Your task to perform on an android device: delete a single message in the gmail app Image 0: 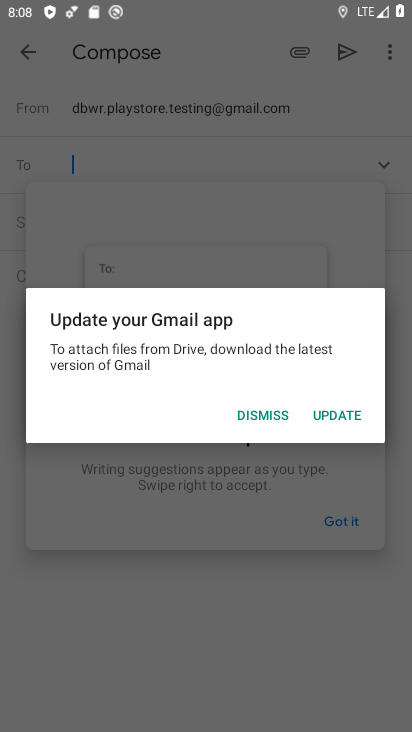
Step 0: press home button
Your task to perform on an android device: delete a single message in the gmail app Image 1: 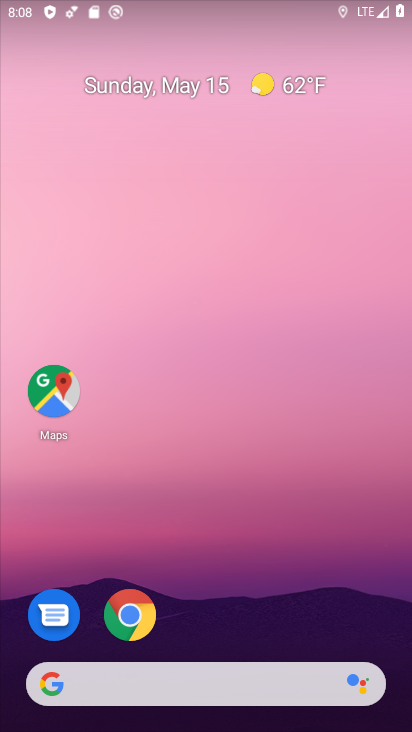
Step 1: drag from (184, 278) to (238, 20)
Your task to perform on an android device: delete a single message in the gmail app Image 2: 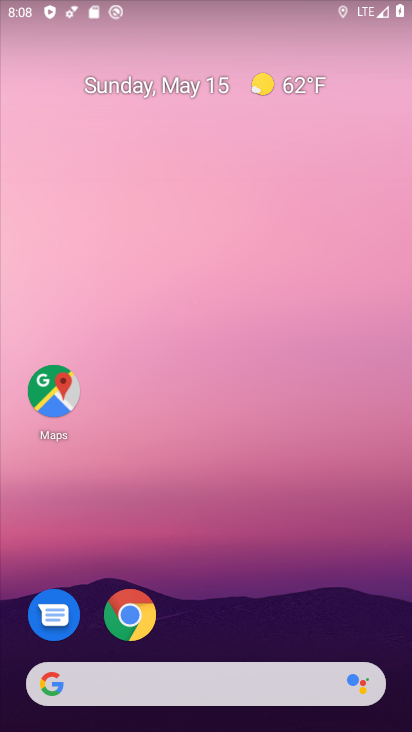
Step 2: drag from (207, 484) to (245, 3)
Your task to perform on an android device: delete a single message in the gmail app Image 3: 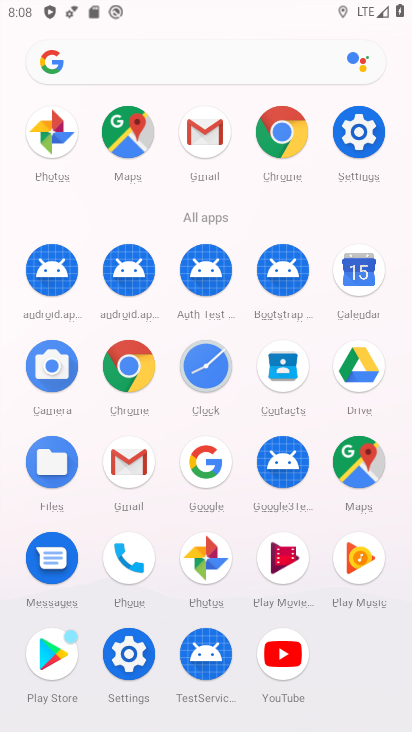
Step 3: click (212, 125)
Your task to perform on an android device: delete a single message in the gmail app Image 4: 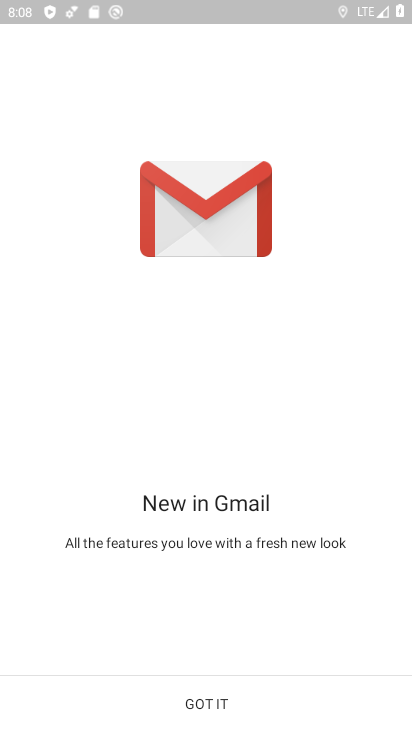
Step 4: click (193, 710)
Your task to perform on an android device: delete a single message in the gmail app Image 5: 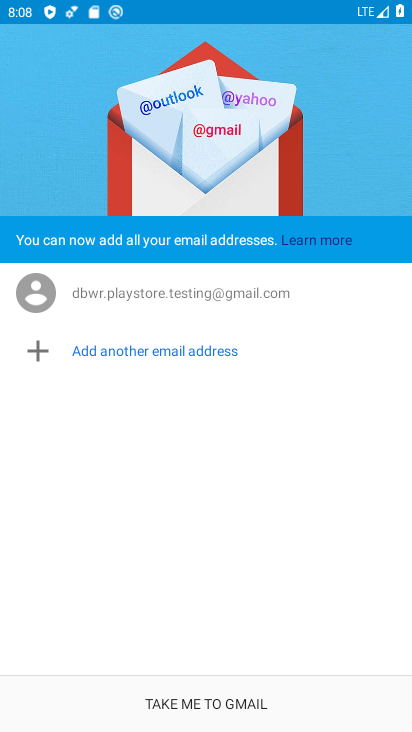
Step 5: click (193, 710)
Your task to perform on an android device: delete a single message in the gmail app Image 6: 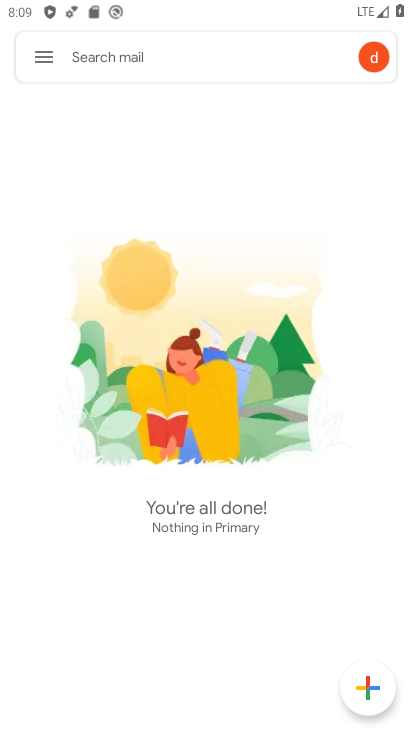
Step 6: click (193, 710)
Your task to perform on an android device: delete a single message in the gmail app Image 7: 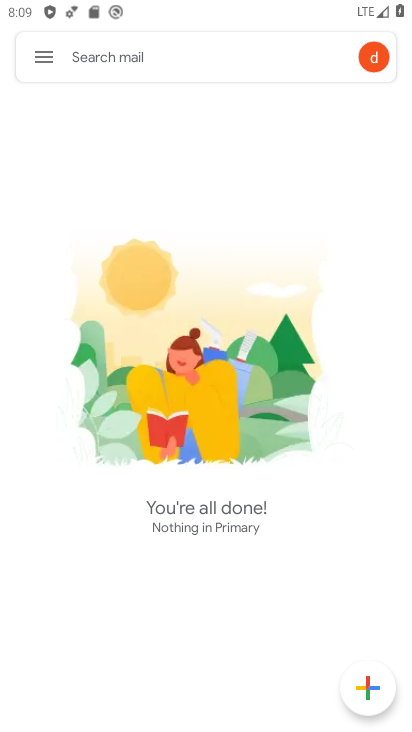
Step 7: task complete